Your task to perform on an android device: Open ESPN.com Image 0: 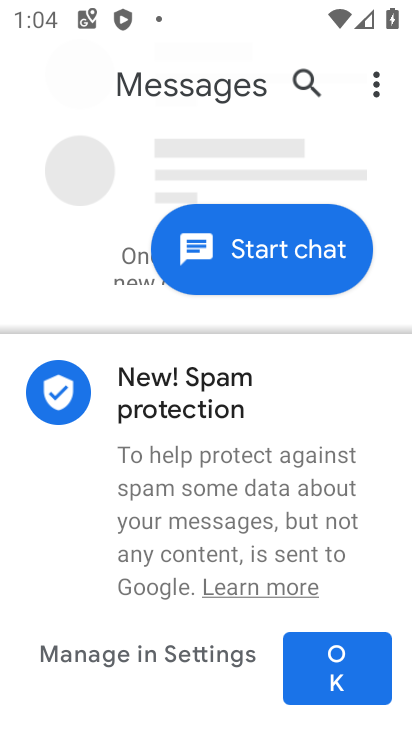
Step 0: press home button
Your task to perform on an android device: Open ESPN.com Image 1: 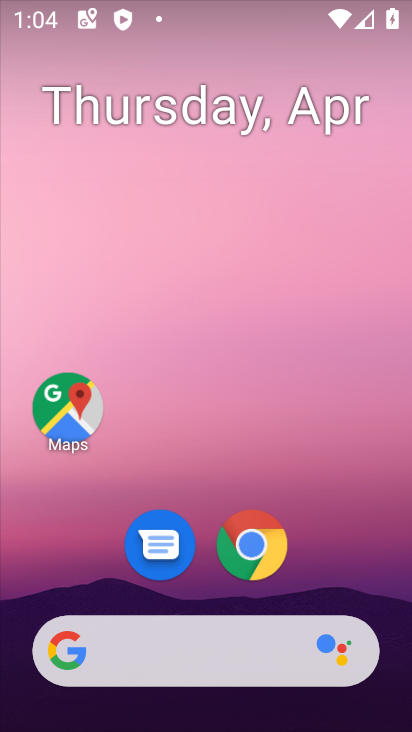
Step 1: drag from (208, 654) to (295, 43)
Your task to perform on an android device: Open ESPN.com Image 2: 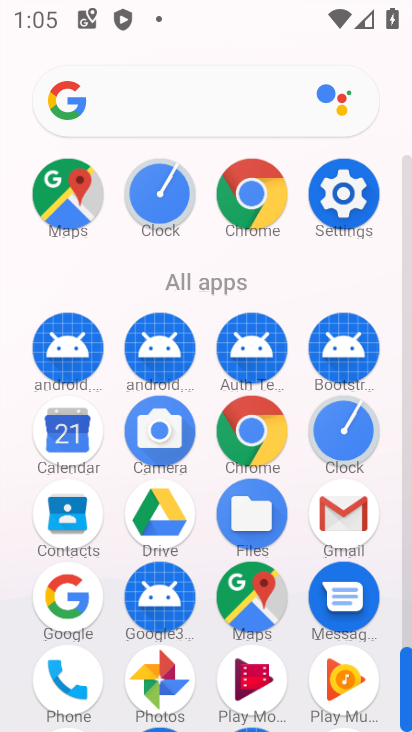
Step 2: click (250, 210)
Your task to perform on an android device: Open ESPN.com Image 3: 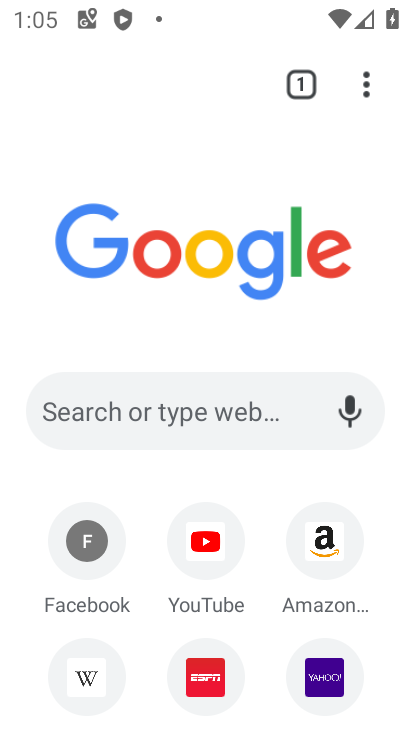
Step 3: drag from (188, 363) to (218, 186)
Your task to perform on an android device: Open ESPN.com Image 4: 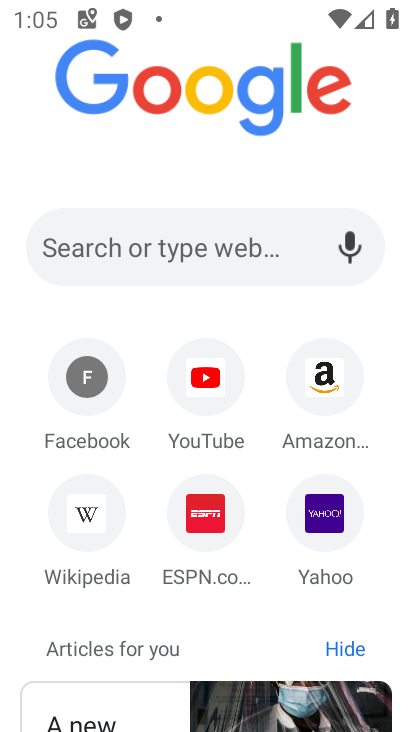
Step 4: click (203, 509)
Your task to perform on an android device: Open ESPN.com Image 5: 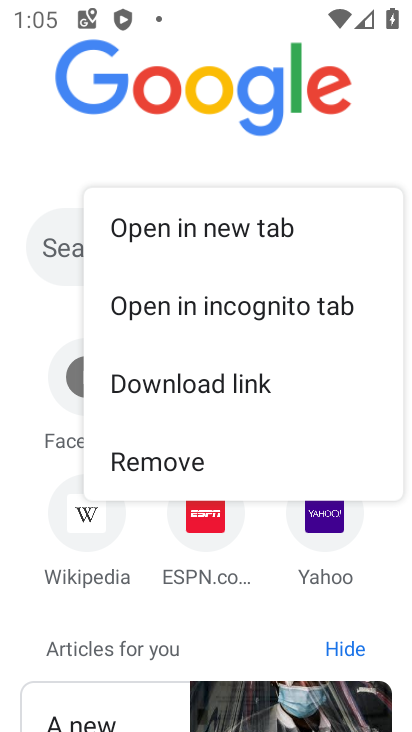
Step 5: click (204, 525)
Your task to perform on an android device: Open ESPN.com Image 6: 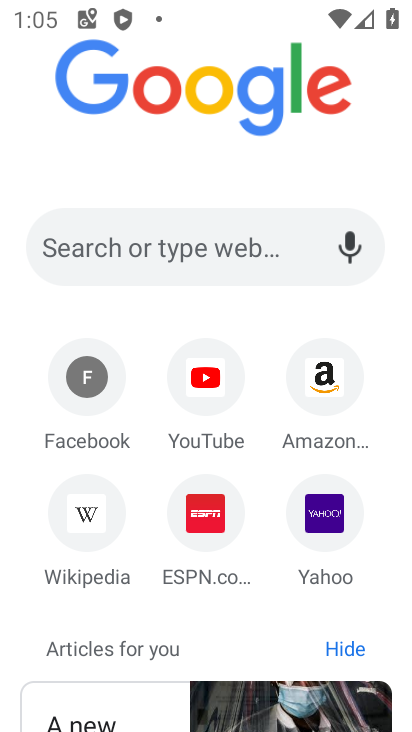
Step 6: click (206, 519)
Your task to perform on an android device: Open ESPN.com Image 7: 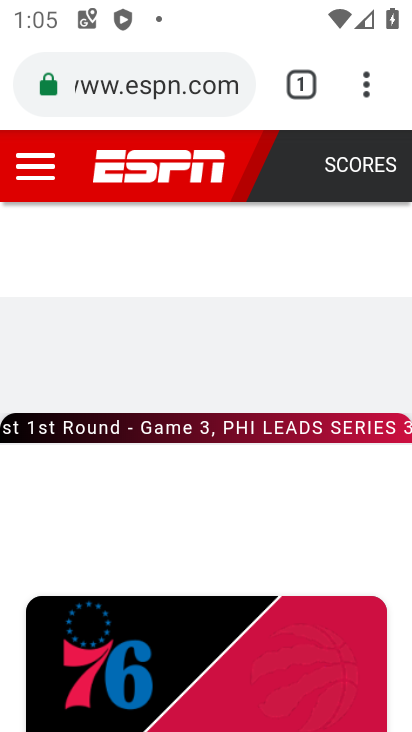
Step 7: task complete